Your task to perform on an android device: open app "Viber Messenger" Image 0: 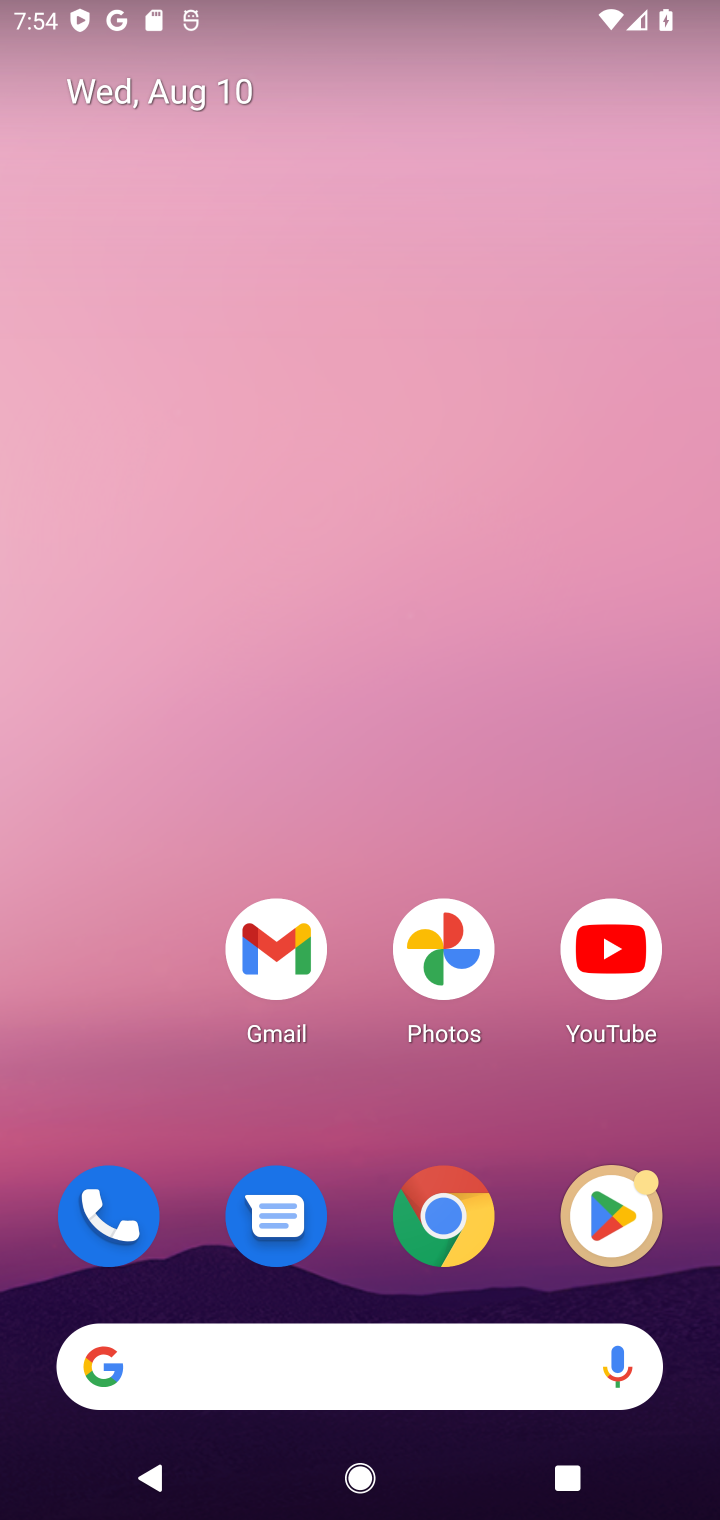
Step 0: click (635, 1225)
Your task to perform on an android device: open app "Viber Messenger" Image 1: 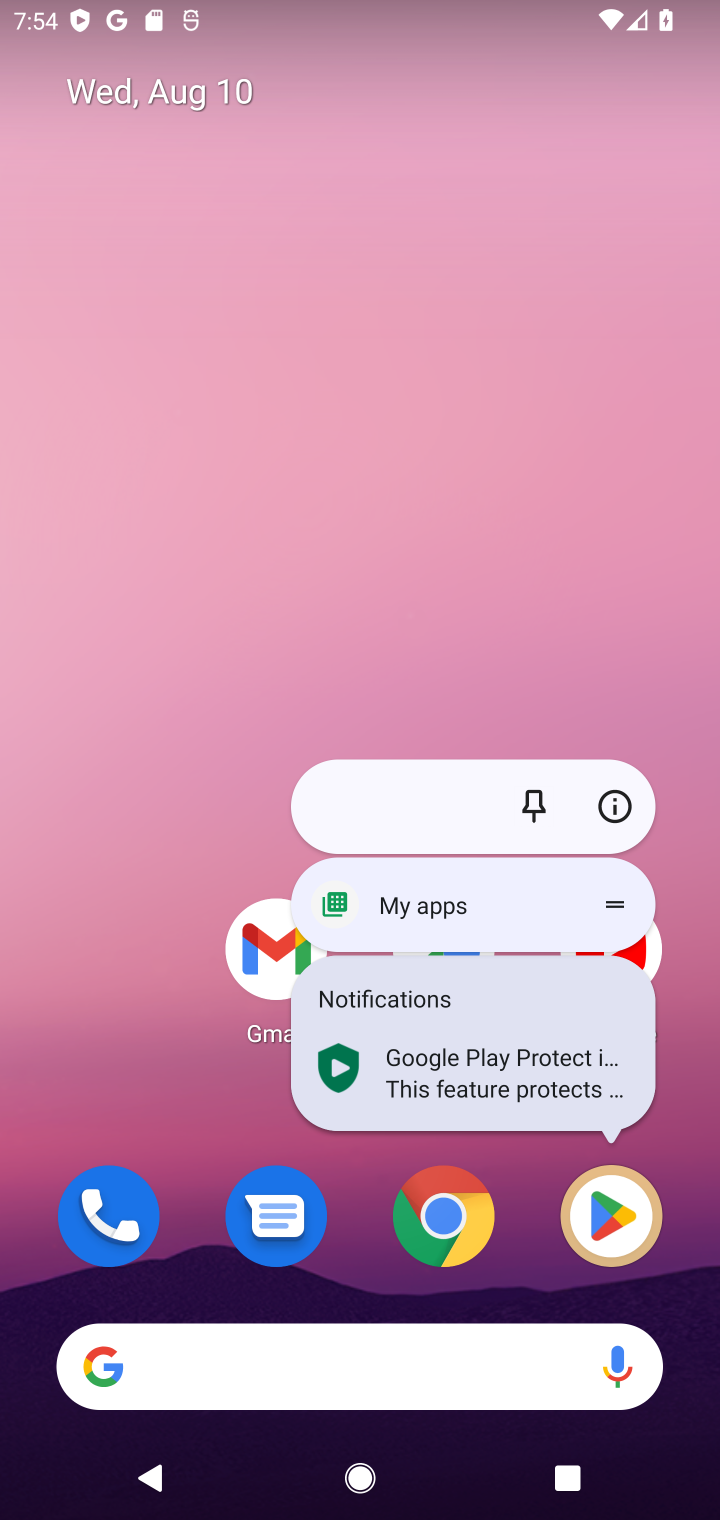
Step 1: click (617, 1211)
Your task to perform on an android device: open app "Viber Messenger" Image 2: 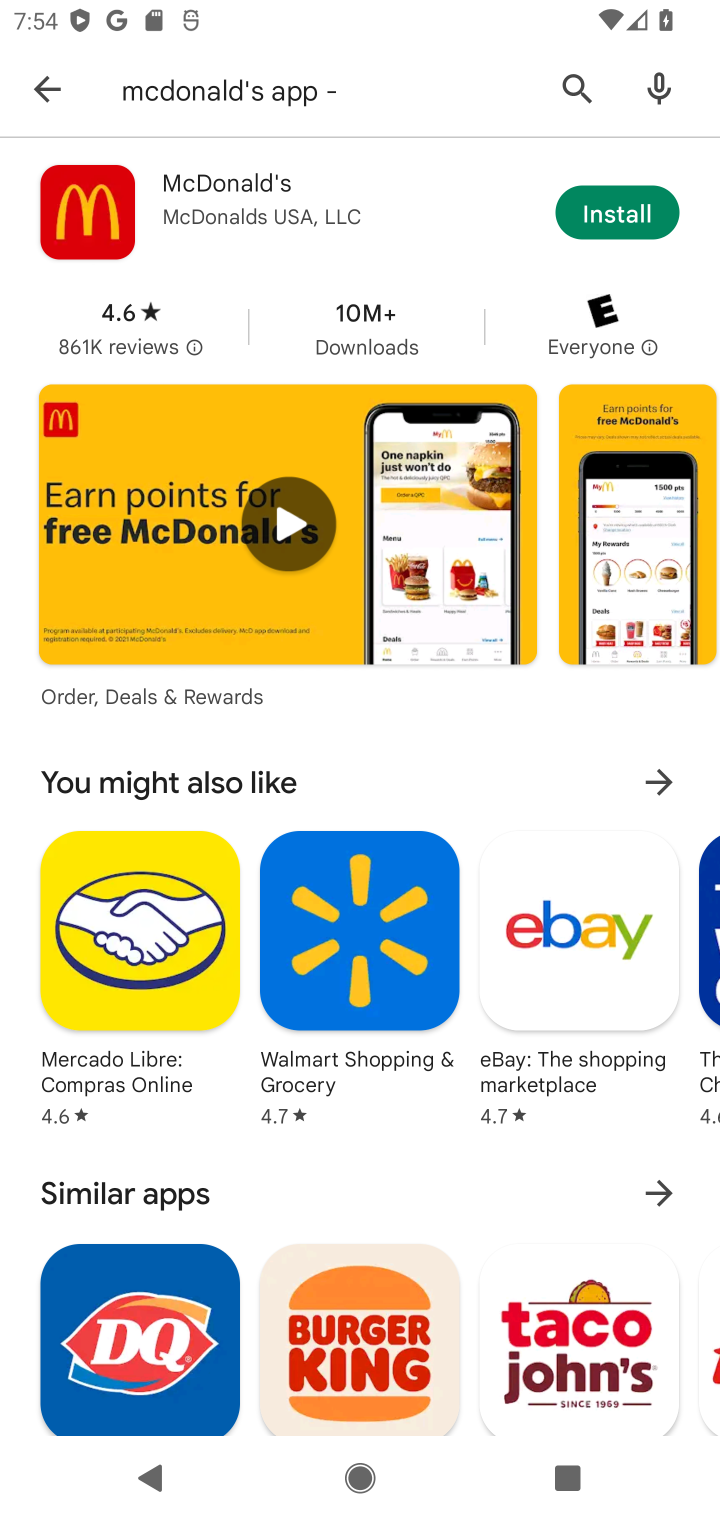
Step 2: click (567, 84)
Your task to perform on an android device: open app "Viber Messenger" Image 3: 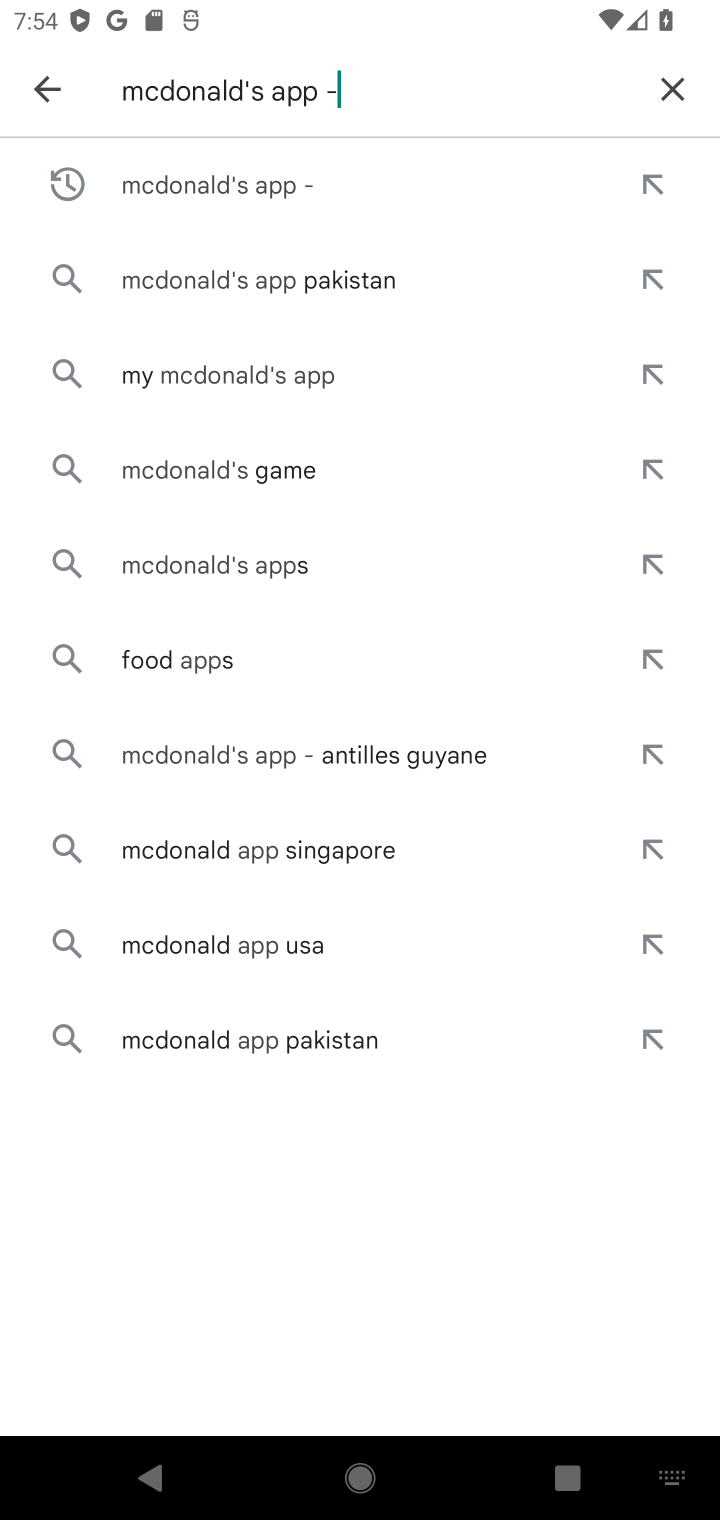
Step 3: click (677, 99)
Your task to perform on an android device: open app "Viber Messenger" Image 4: 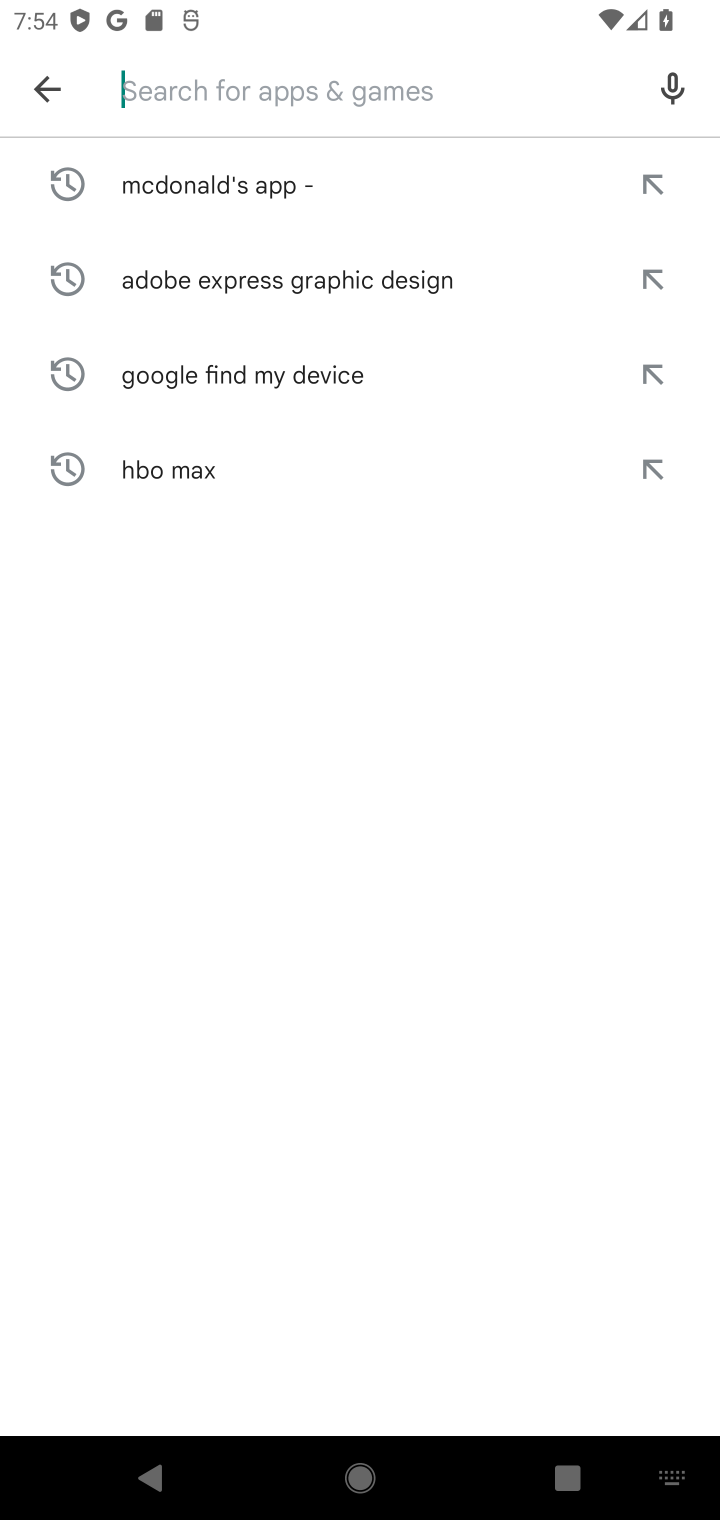
Step 4: click (224, 99)
Your task to perform on an android device: open app "Viber Messenger" Image 5: 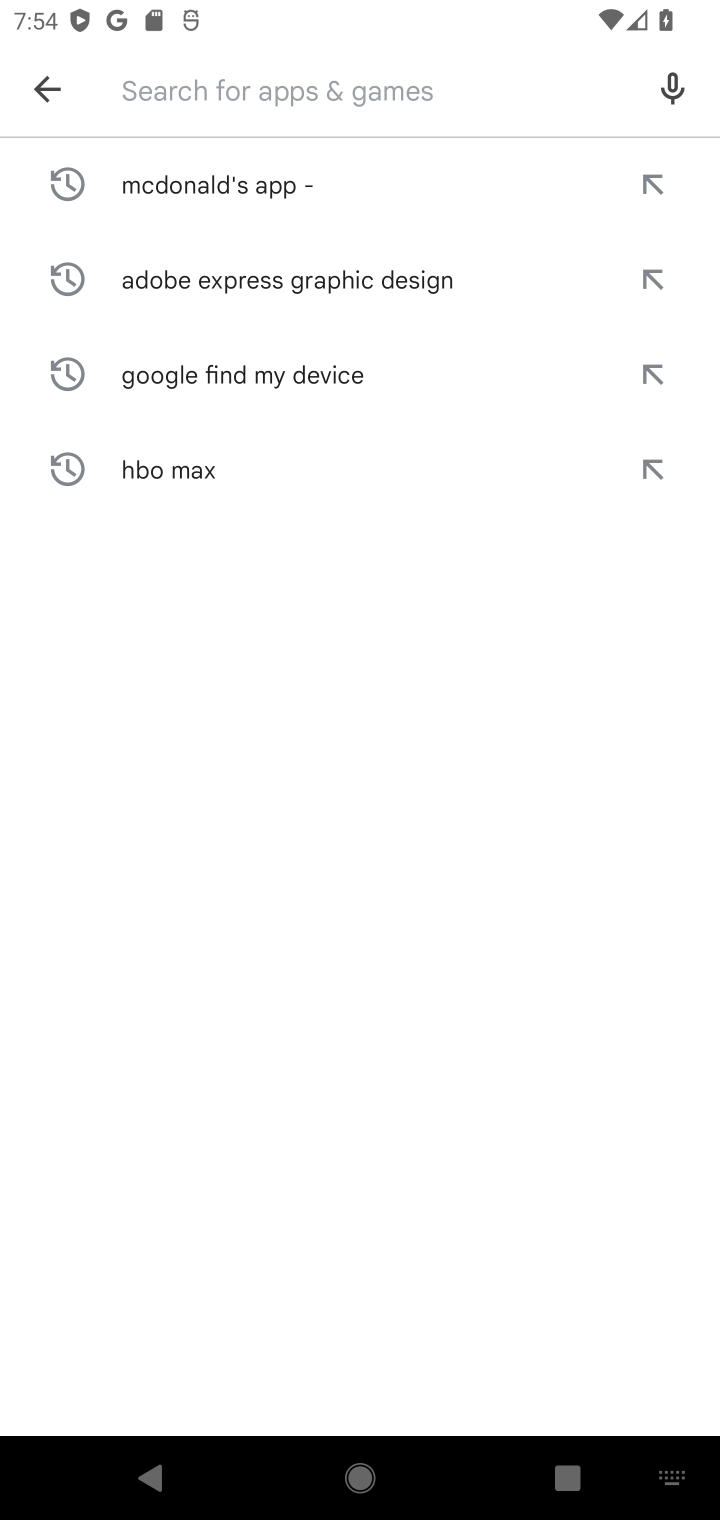
Step 5: click (263, 100)
Your task to perform on an android device: open app "Viber Messenger" Image 6: 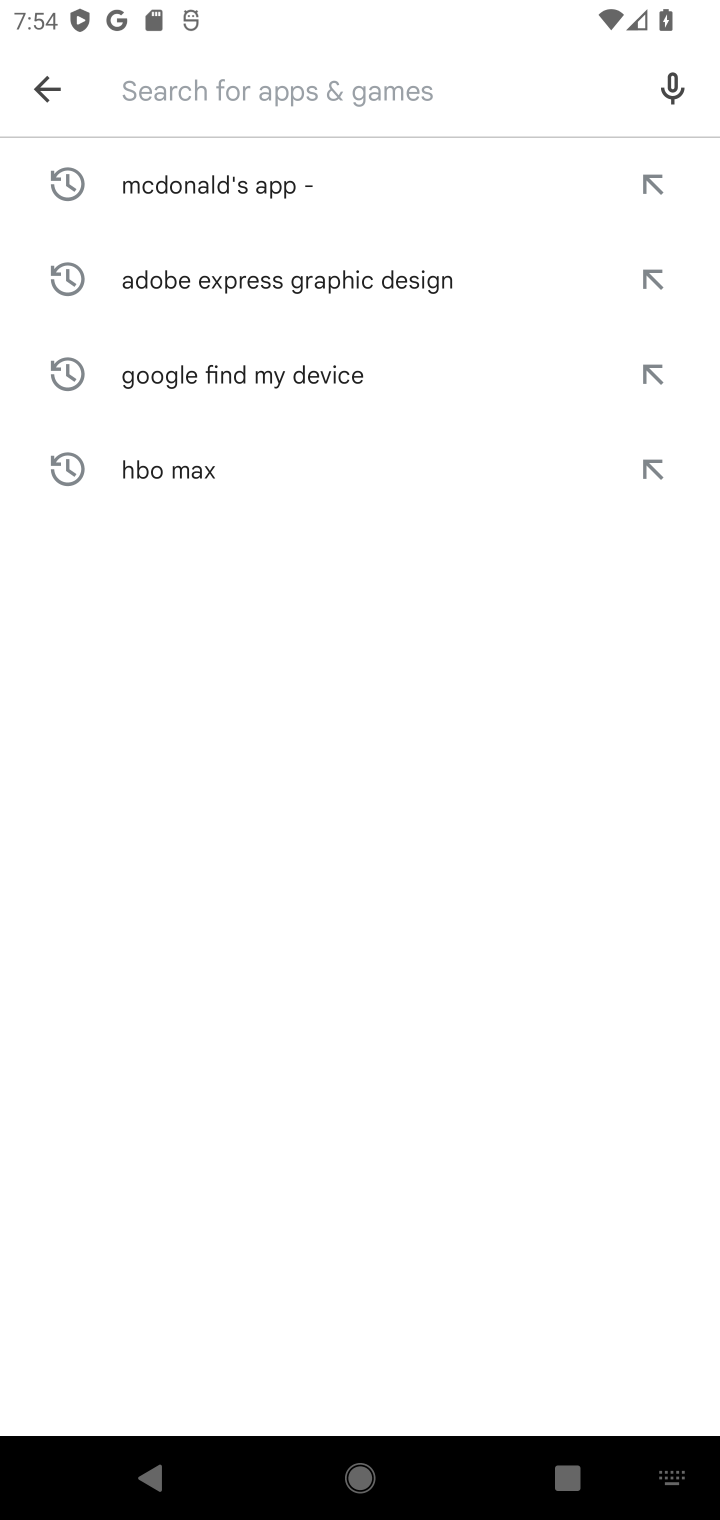
Step 6: type "Viber Messenge"
Your task to perform on an android device: open app "Viber Messenger" Image 7: 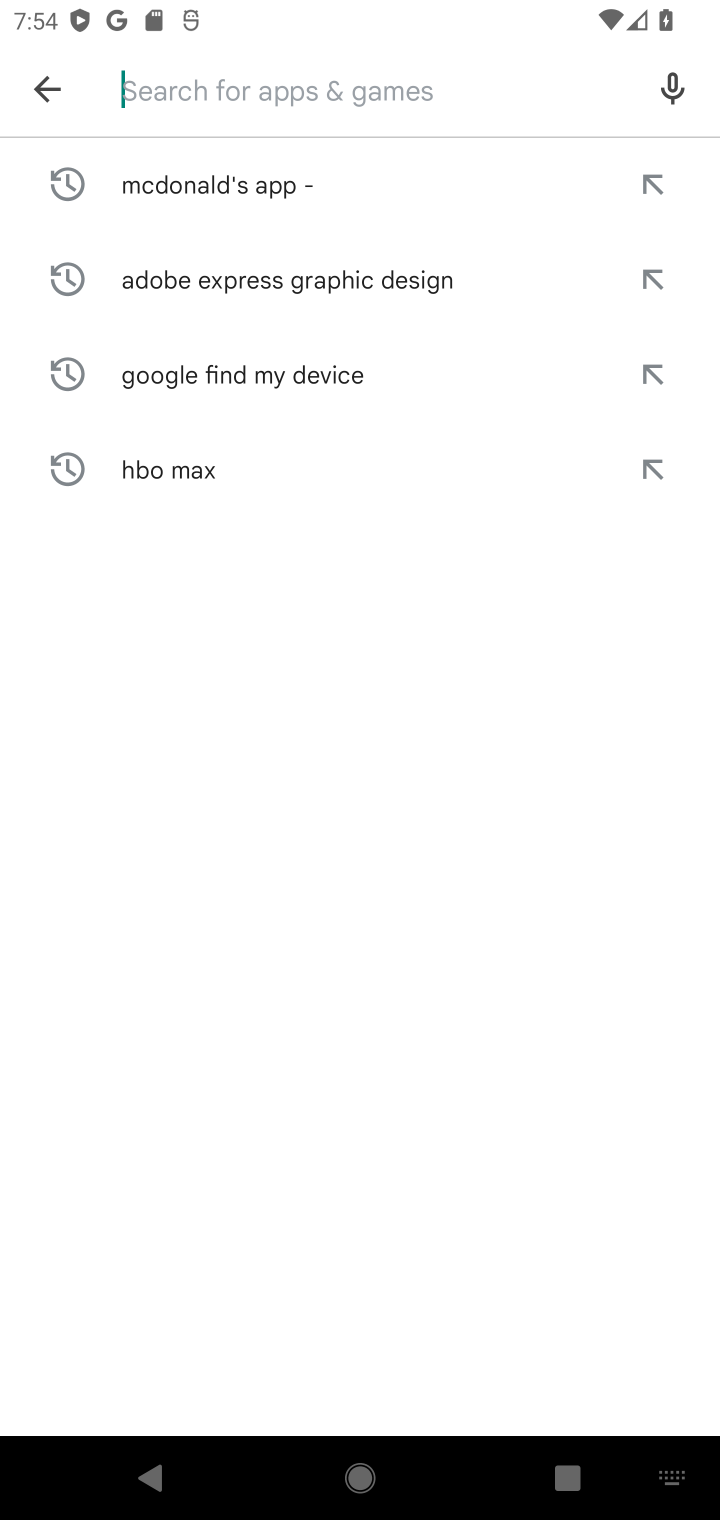
Step 7: click (266, 820)
Your task to perform on an android device: open app "Viber Messenger" Image 8: 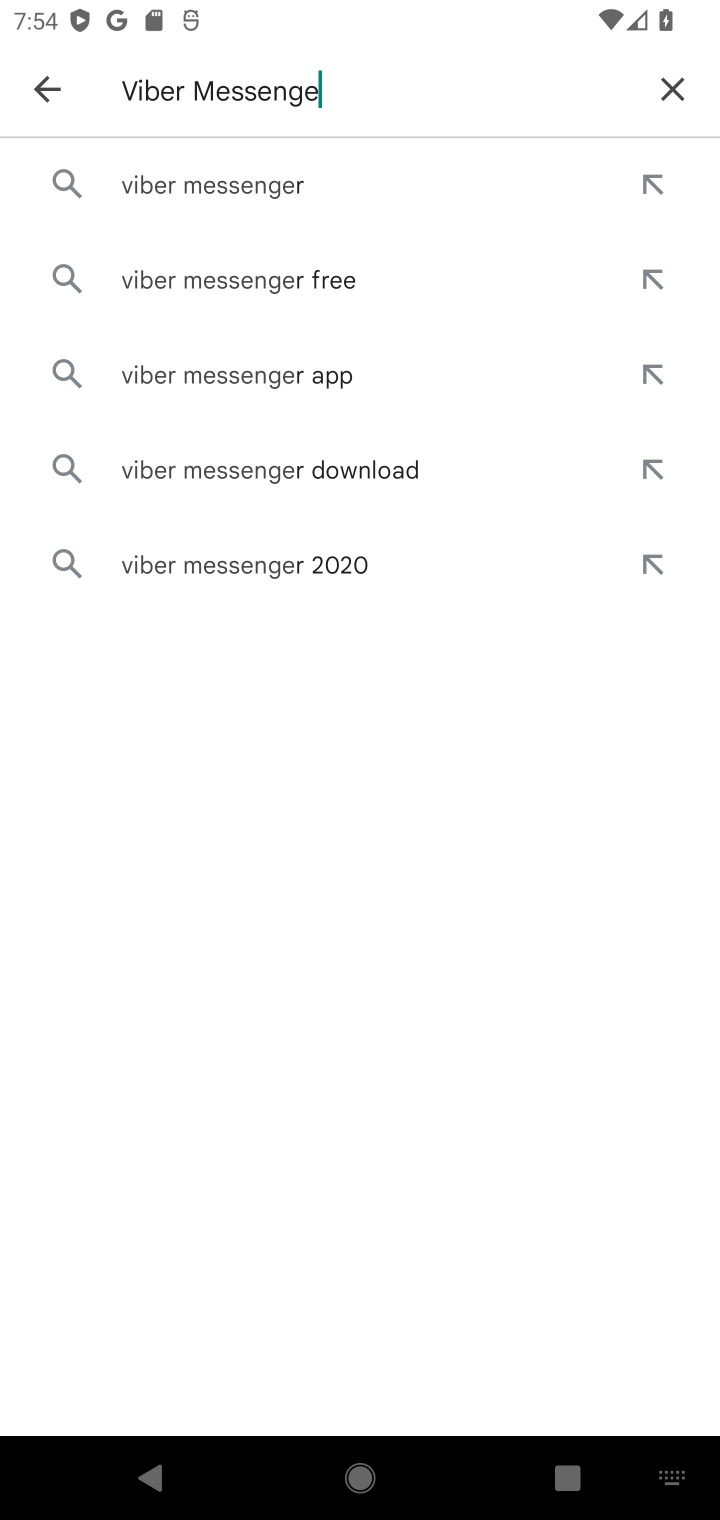
Step 8: click (256, 187)
Your task to perform on an android device: open app "Viber Messenger" Image 9: 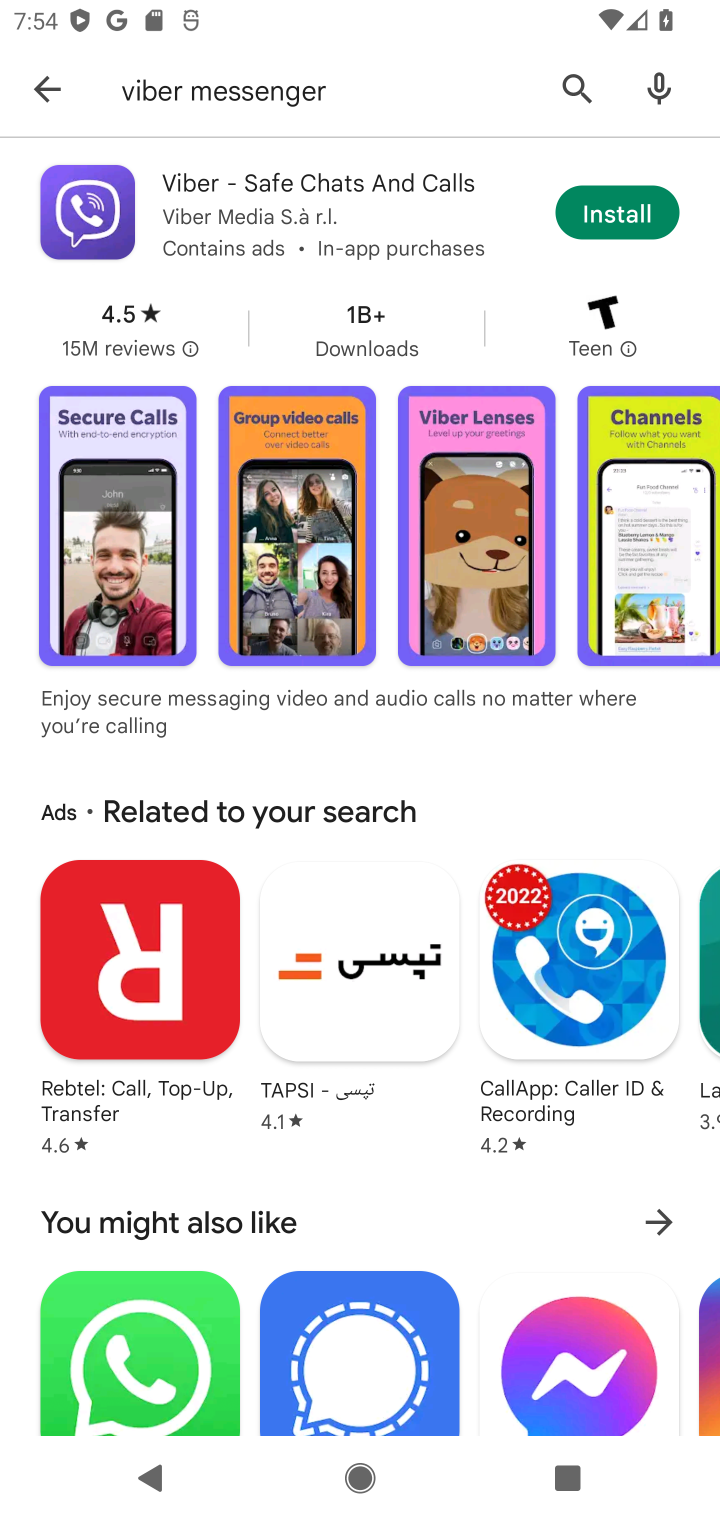
Step 9: task complete